Your task to perform on an android device: install app "Move to iOS" Image 0: 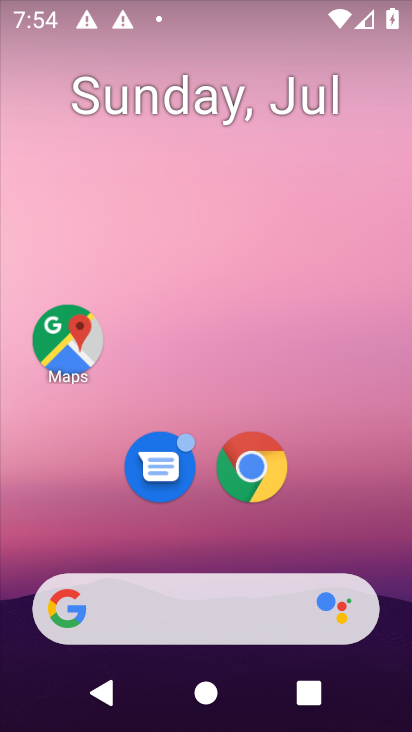
Step 0: drag from (202, 526) to (258, 158)
Your task to perform on an android device: install app "Move to iOS" Image 1: 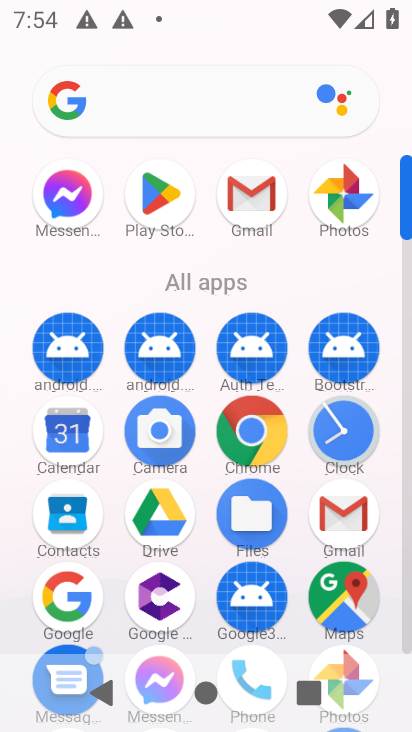
Step 1: drag from (189, 588) to (210, 156)
Your task to perform on an android device: install app "Move to iOS" Image 2: 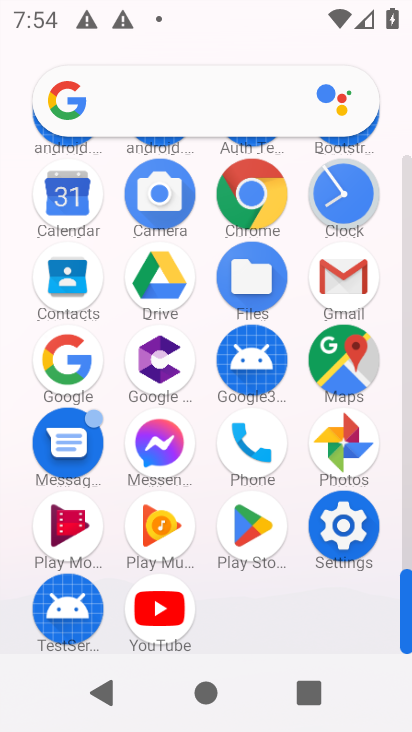
Step 2: drag from (216, 550) to (217, 329)
Your task to perform on an android device: install app "Move to iOS" Image 3: 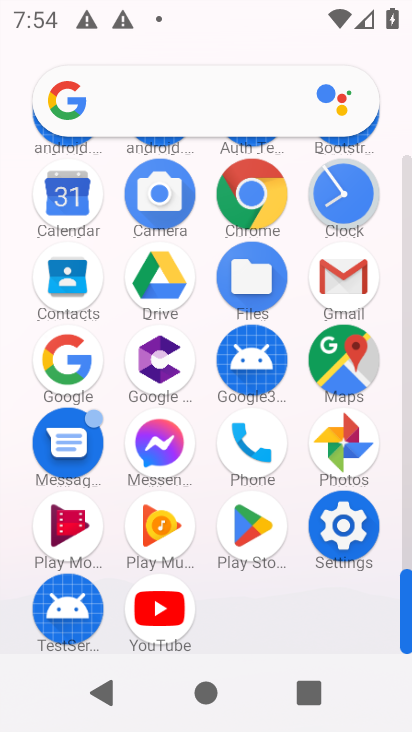
Step 3: drag from (194, 286) to (201, 625)
Your task to perform on an android device: install app "Move to iOS" Image 4: 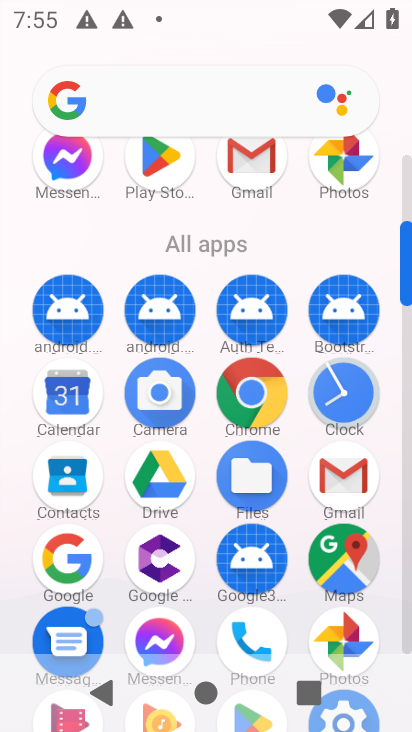
Step 4: drag from (204, 665) to (214, 265)
Your task to perform on an android device: install app "Move to iOS" Image 5: 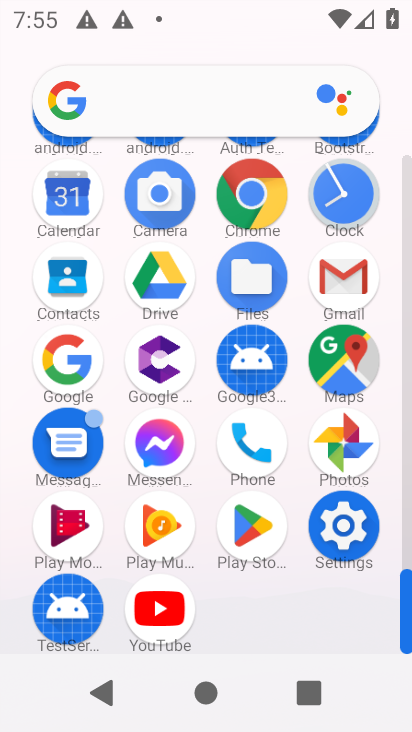
Step 5: click (256, 496)
Your task to perform on an android device: install app "Move to iOS" Image 6: 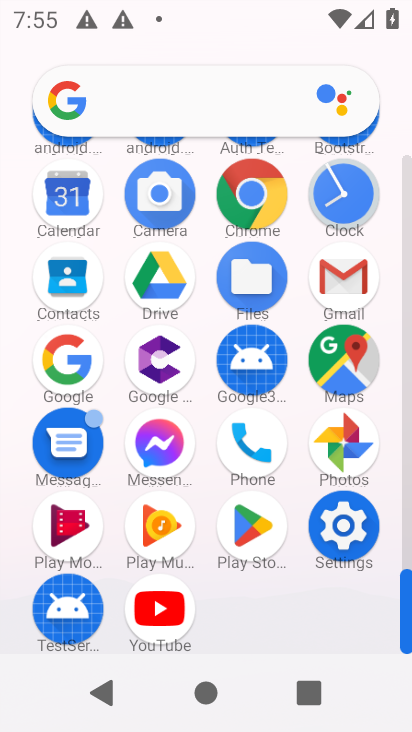
Step 6: click (256, 501)
Your task to perform on an android device: install app "Move to iOS" Image 7: 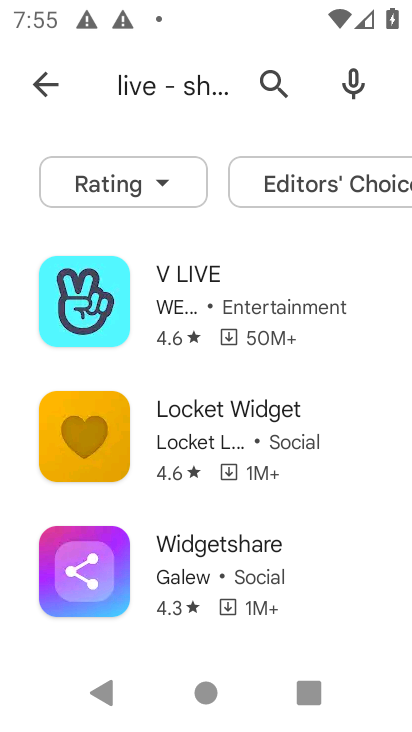
Step 7: click (277, 82)
Your task to perform on an android device: install app "Move to iOS" Image 8: 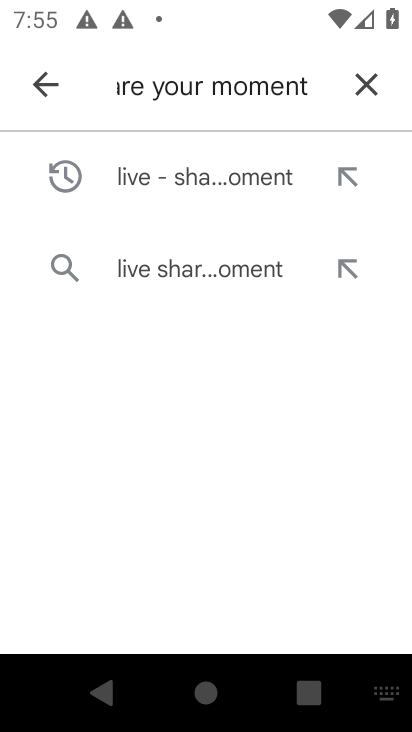
Step 8: drag from (218, 474) to (249, 158)
Your task to perform on an android device: install app "Move to iOS" Image 9: 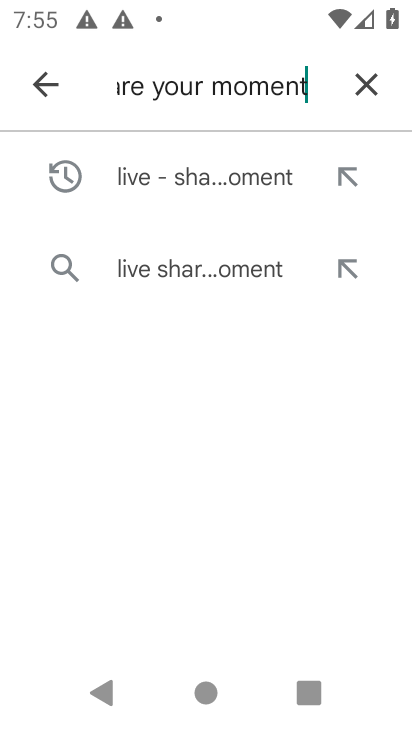
Step 9: drag from (206, 308) to (233, 626)
Your task to perform on an android device: install app "Move to iOS" Image 10: 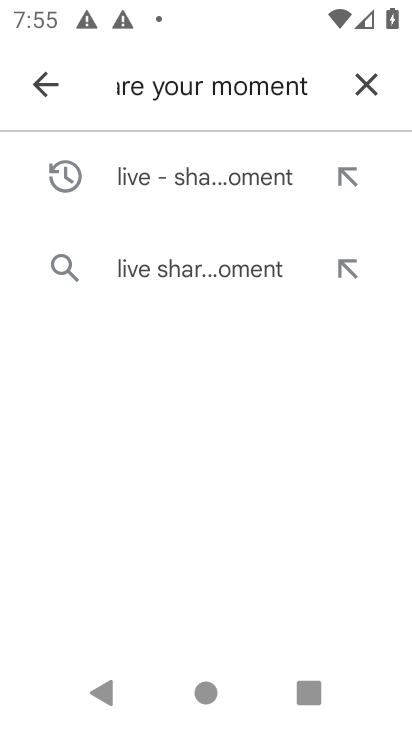
Step 10: click (337, 80)
Your task to perform on an android device: install app "Move to iOS" Image 11: 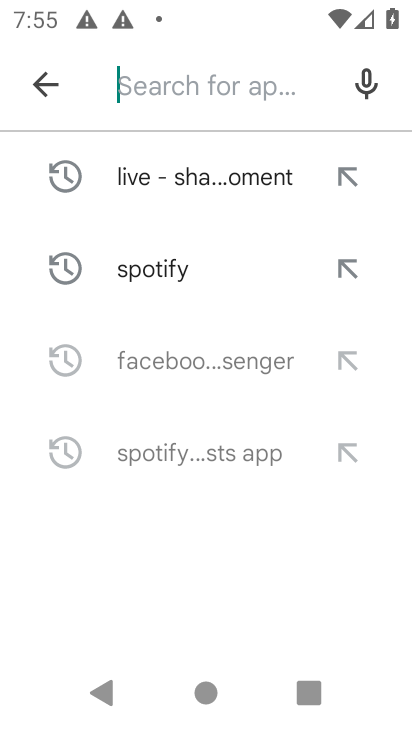
Step 11: click (365, 83)
Your task to perform on an android device: install app "Move to iOS" Image 12: 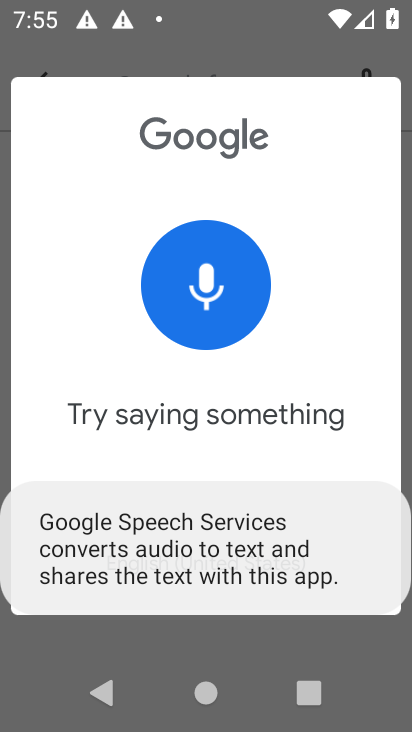
Step 12: press back button
Your task to perform on an android device: install app "Move to iOS" Image 13: 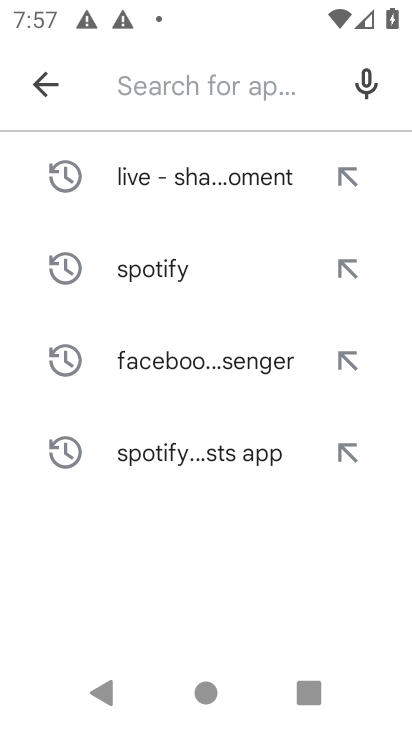
Step 13: type "Move to iOS"
Your task to perform on an android device: install app "Move to iOS" Image 14: 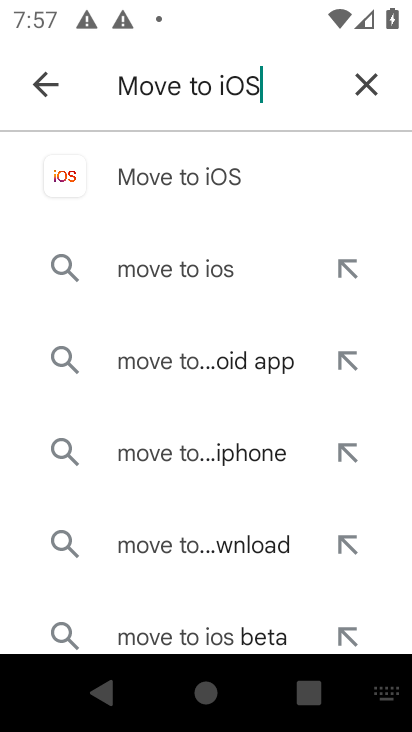
Step 14: type ""
Your task to perform on an android device: install app "Move to iOS" Image 15: 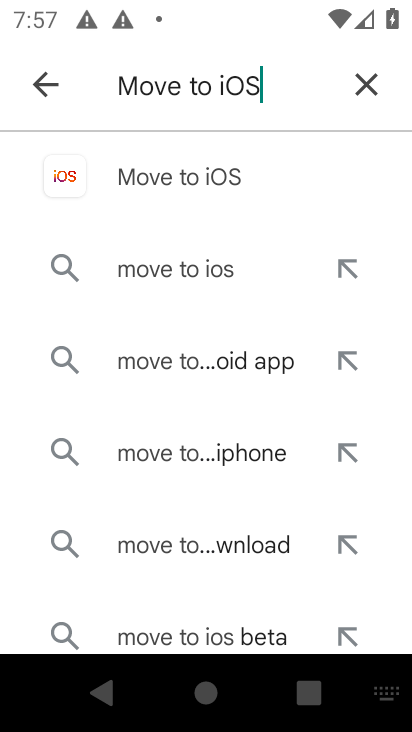
Step 15: click (176, 170)
Your task to perform on an android device: install app "Move to iOS" Image 16: 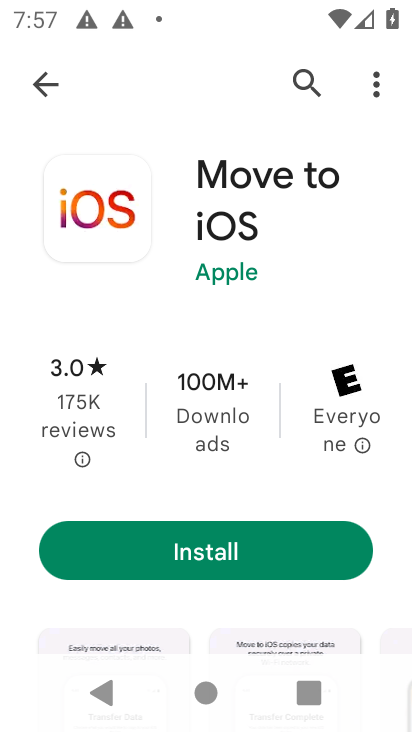
Step 16: drag from (225, 432) to (302, 137)
Your task to perform on an android device: install app "Move to iOS" Image 17: 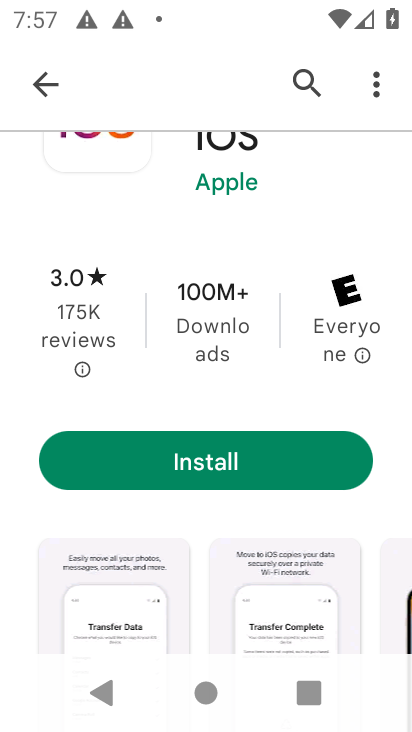
Step 17: drag from (206, 218) to (386, 676)
Your task to perform on an android device: install app "Move to iOS" Image 18: 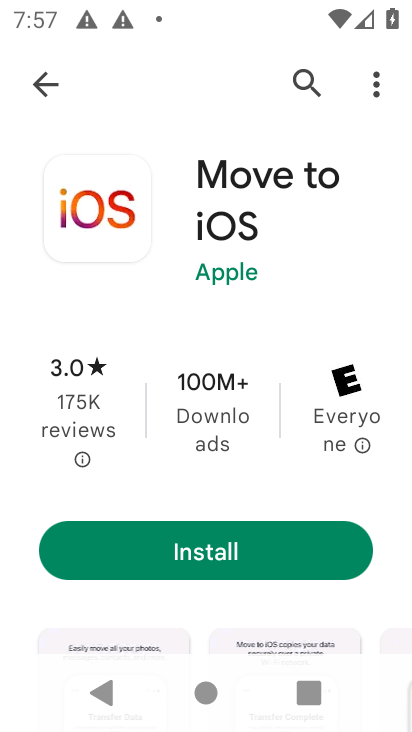
Step 18: drag from (175, 295) to (248, 580)
Your task to perform on an android device: install app "Move to iOS" Image 19: 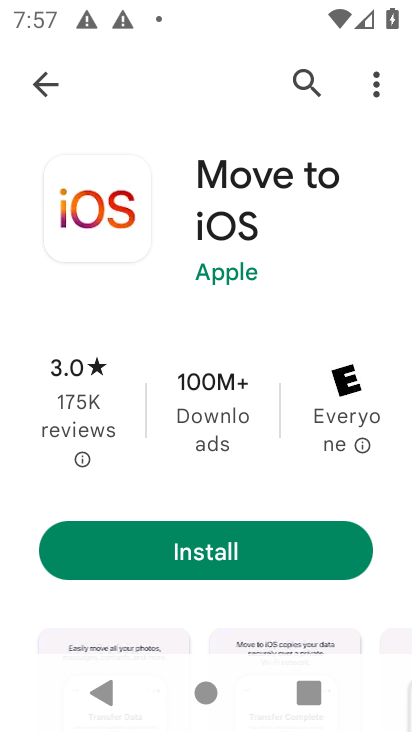
Step 19: click (181, 547)
Your task to perform on an android device: install app "Move to iOS" Image 20: 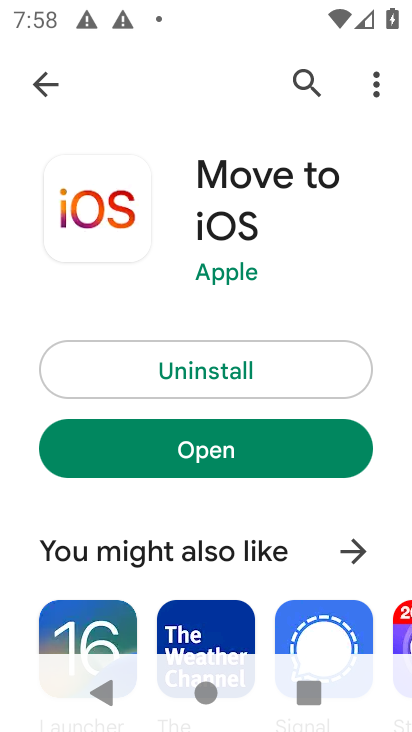
Step 20: drag from (204, 228) to (264, 629)
Your task to perform on an android device: install app "Move to iOS" Image 21: 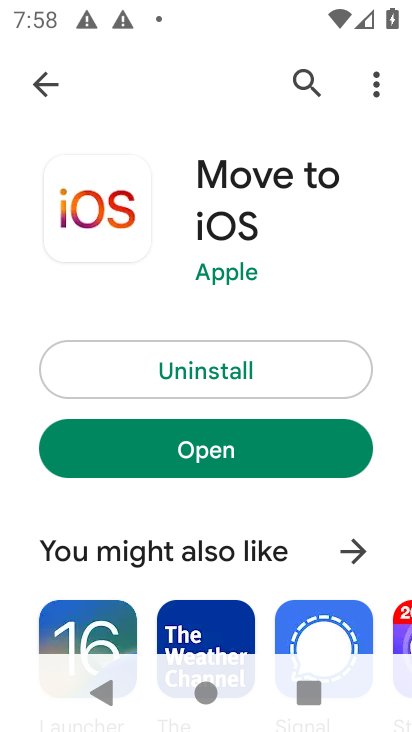
Step 21: click (203, 461)
Your task to perform on an android device: install app "Move to iOS" Image 22: 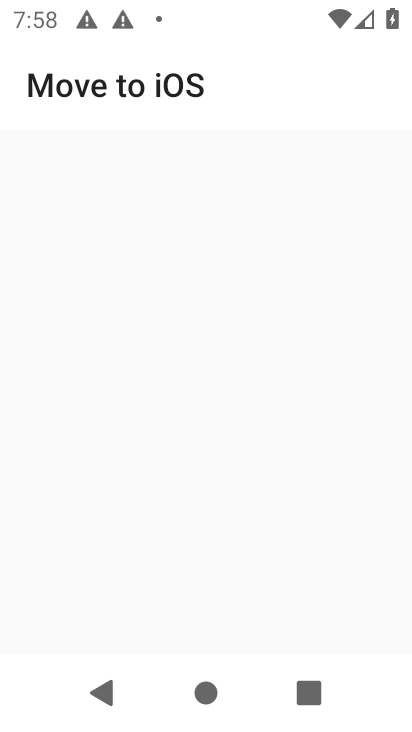
Step 22: task complete